Your task to perform on an android device: move a message to another label in the gmail app Image 0: 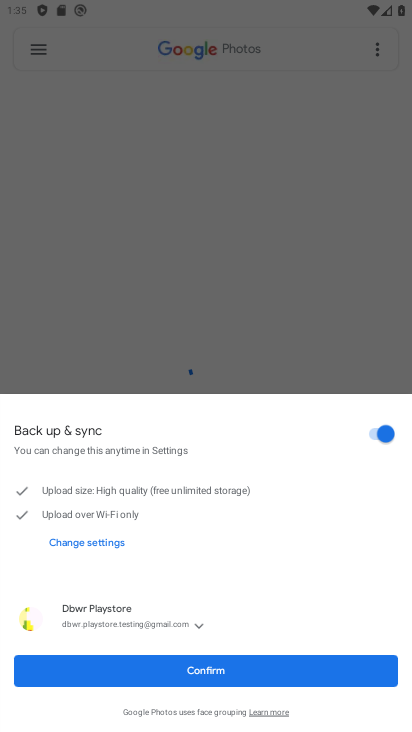
Step 0: press home button
Your task to perform on an android device: move a message to another label in the gmail app Image 1: 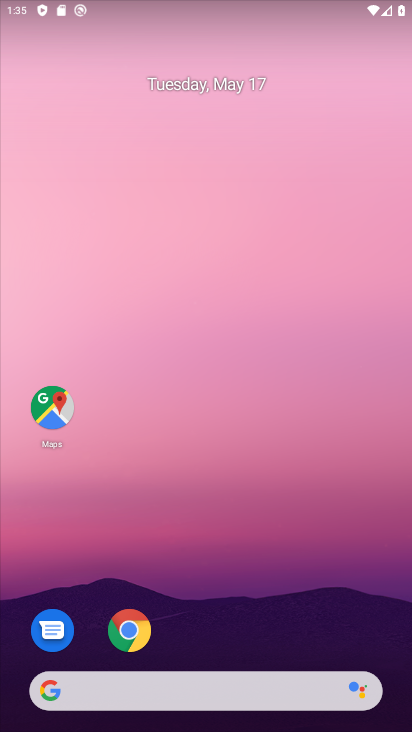
Step 1: drag from (318, 644) to (329, 192)
Your task to perform on an android device: move a message to another label in the gmail app Image 2: 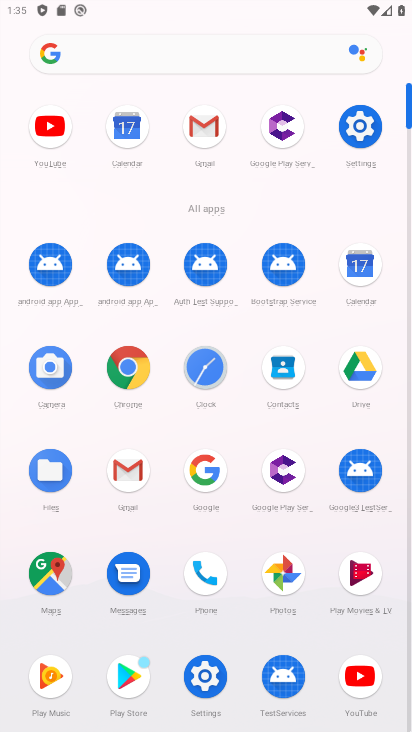
Step 2: click (130, 466)
Your task to perform on an android device: move a message to another label in the gmail app Image 3: 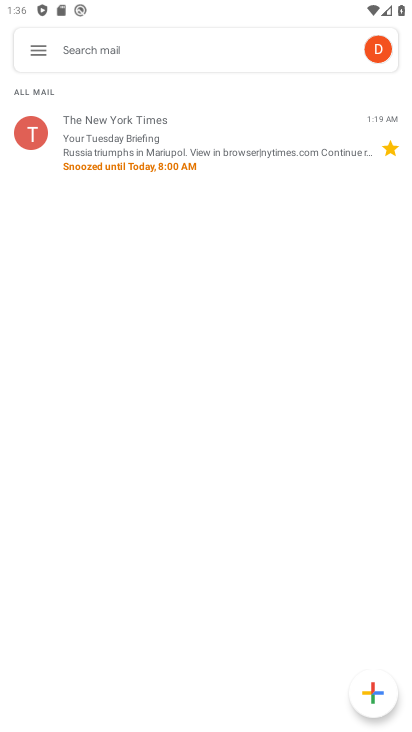
Step 3: task complete